Your task to perform on an android device: Open maps Image 0: 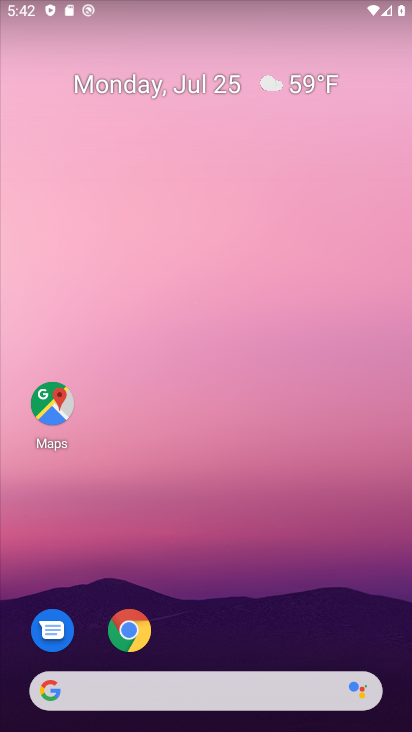
Step 0: click (48, 419)
Your task to perform on an android device: Open maps Image 1: 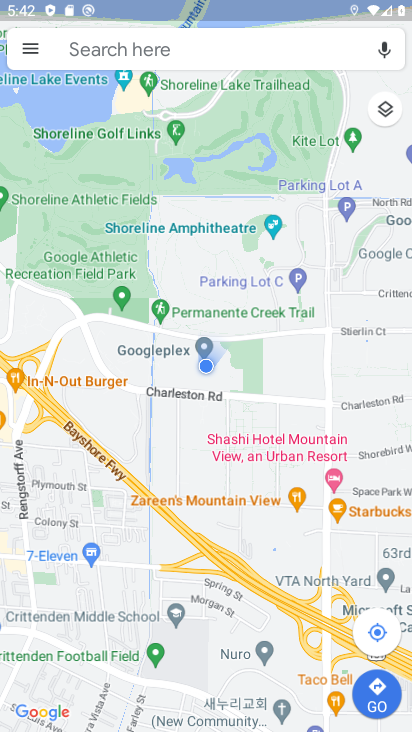
Step 1: task complete